Your task to perform on an android device: Turn off the flashlight Image 0: 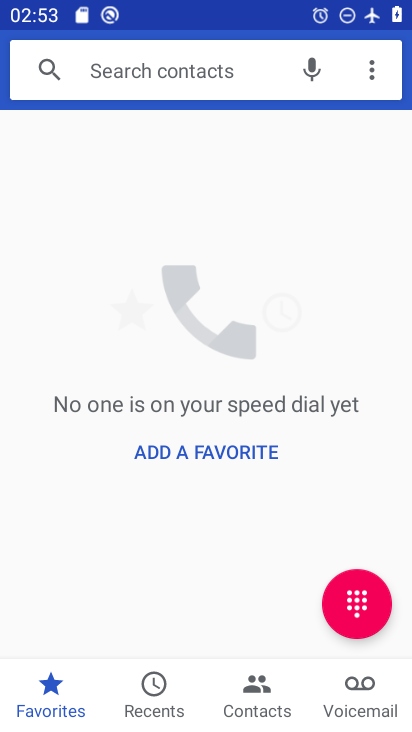
Step 0: press home button
Your task to perform on an android device: Turn off the flashlight Image 1: 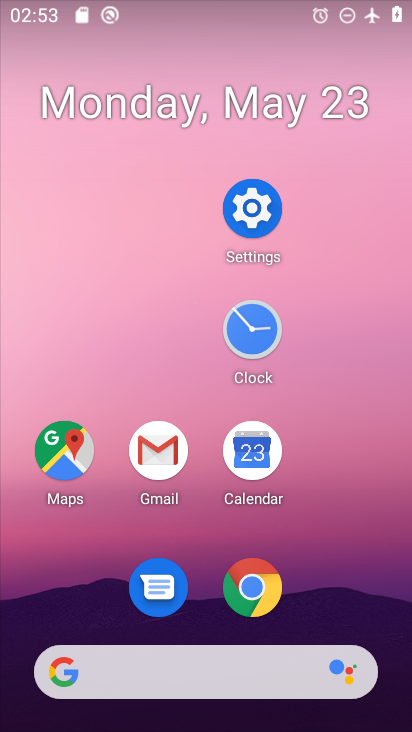
Step 1: click (279, 226)
Your task to perform on an android device: Turn off the flashlight Image 2: 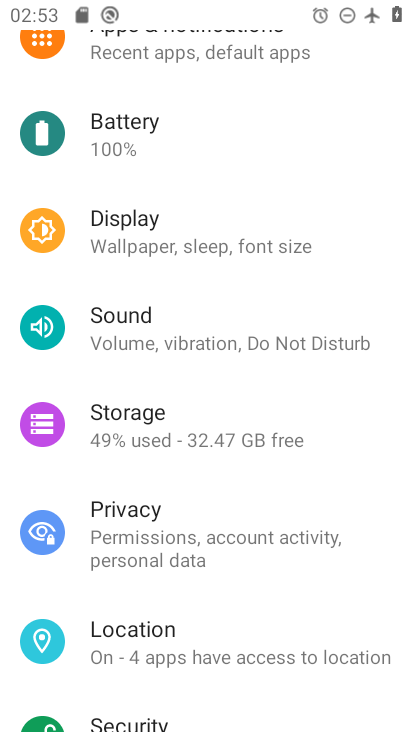
Step 2: press home button
Your task to perform on an android device: Turn off the flashlight Image 3: 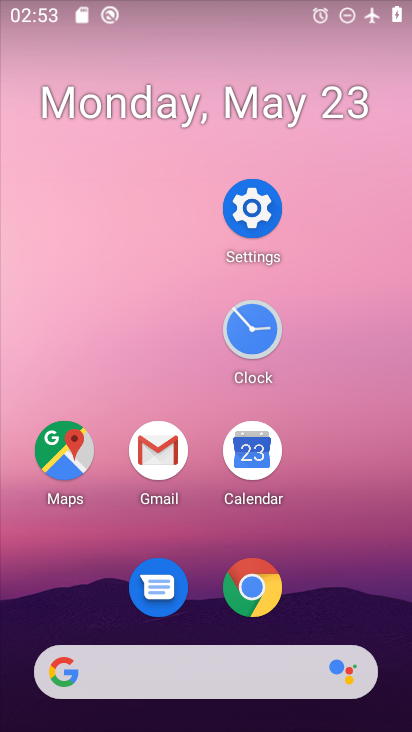
Step 3: drag from (378, 584) to (357, 184)
Your task to perform on an android device: Turn off the flashlight Image 4: 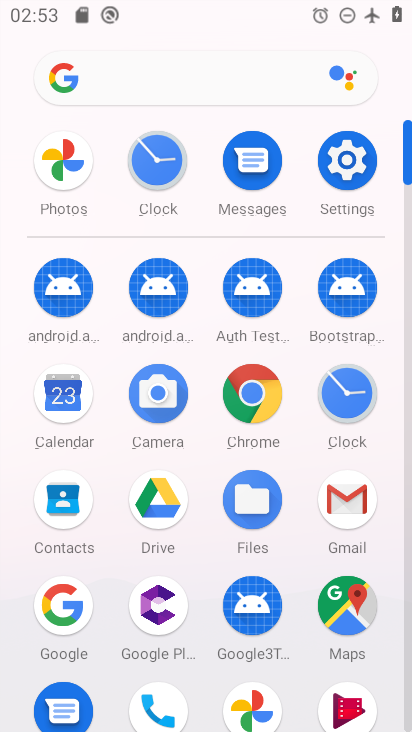
Step 4: click (351, 153)
Your task to perform on an android device: Turn off the flashlight Image 5: 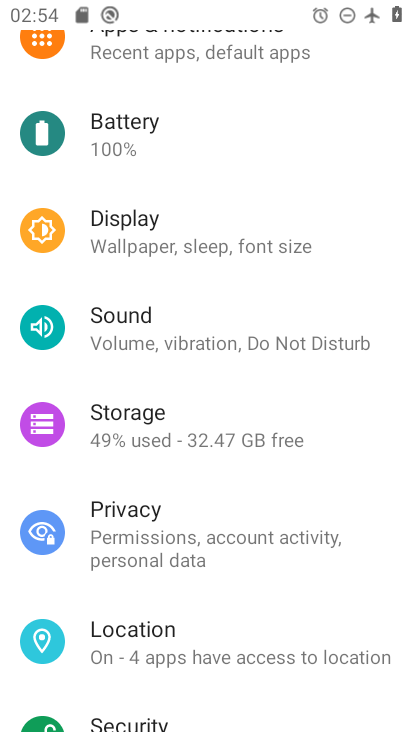
Step 5: task complete